Your task to perform on an android device: Show me the alarms in the clock app Image 0: 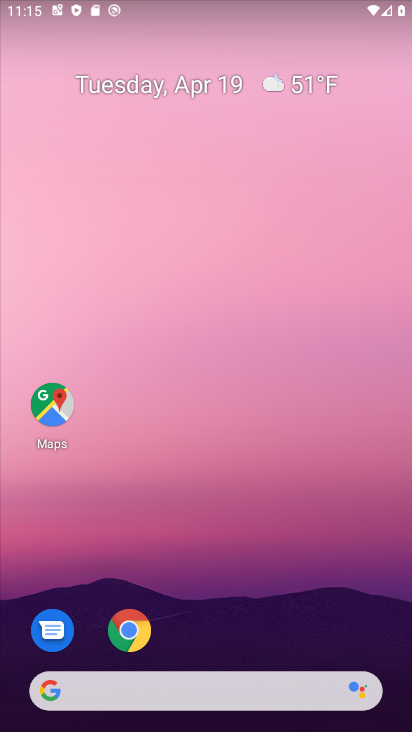
Step 0: drag from (326, 520) to (276, 162)
Your task to perform on an android device: Show me the alarms in the clock app Image 1: 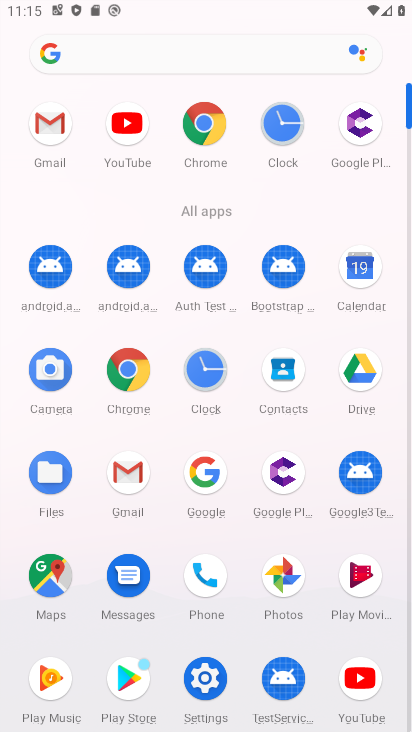
Step 1: click (288, 147)
Your task to perform on an android device: Show me the alarms in the clock app Image 2: 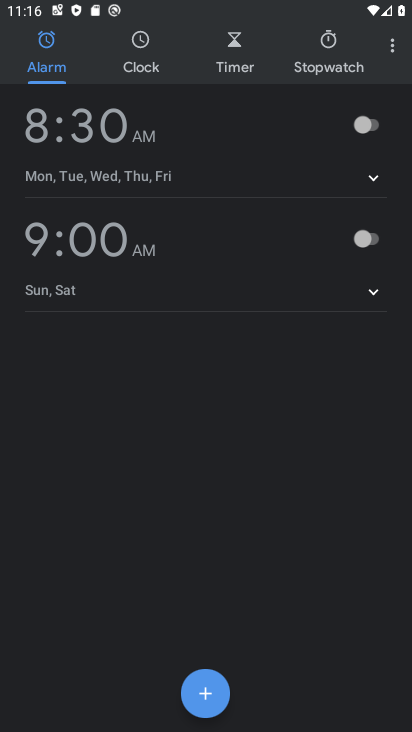
Step 2: task complete